Your task to perform on an android device: delete location history Image 0: 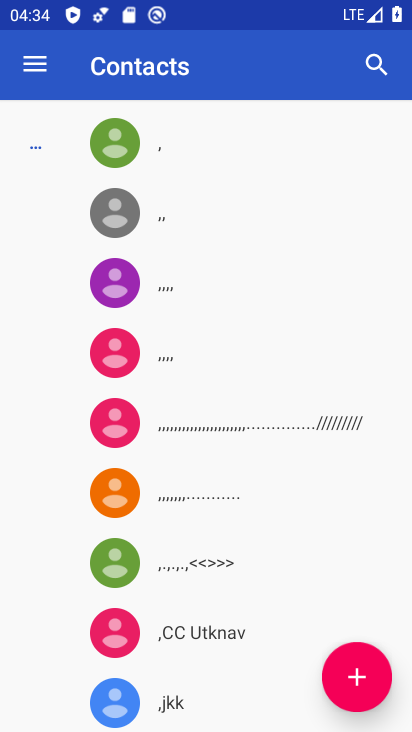
Step 0: press home button
Your task to perform on an android device: delete location history Image 1: 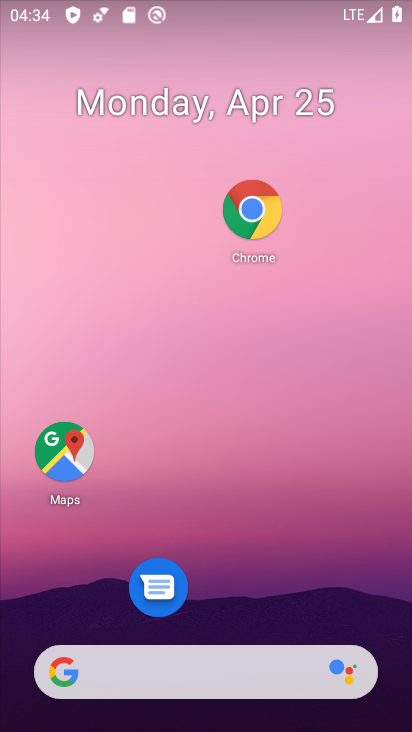
Step 1: click (82, 457)
Your task to perform on an android device: delete location history Image 2: 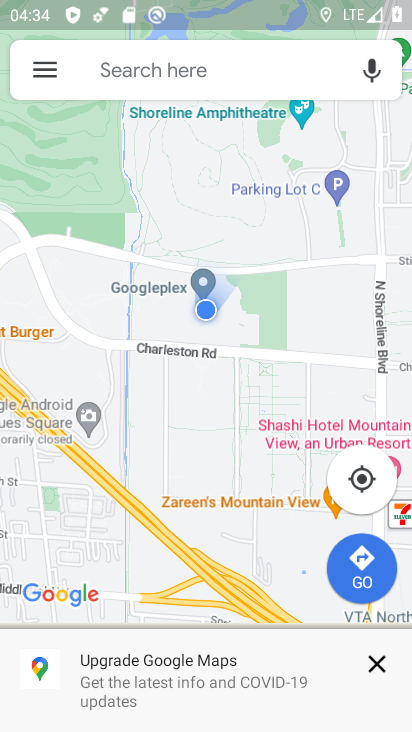
Step 2: click (54, 77)
Your task to perform on an android device: delete location history Image 3: 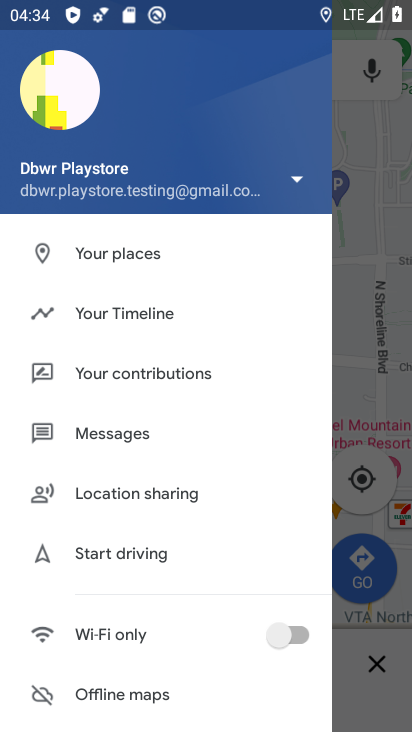
Step 3: click (166, 325)
Your task to perform on an android device: delete location history Image 4: 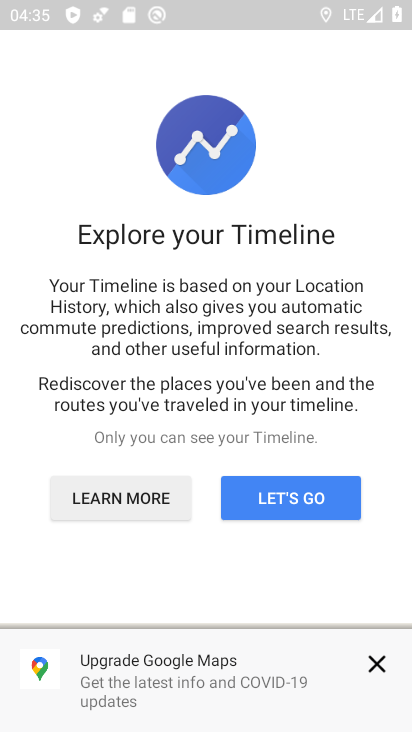
Step 4: click (379, 667)
Your task to perform on an android device: delete location history Image 5: 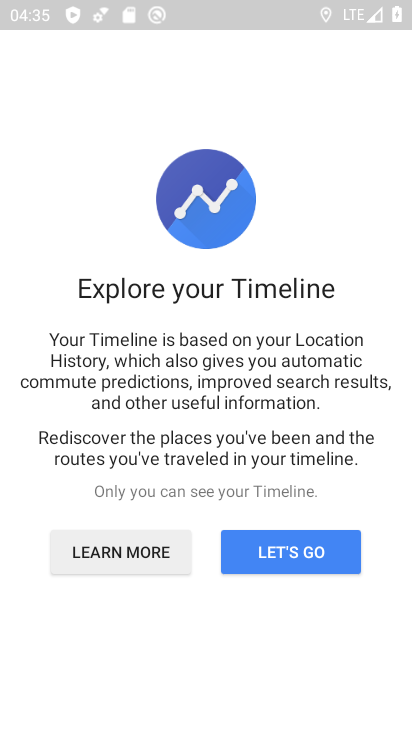
Step 5: click (313, 547)
Your task to perform on an android device: delete location history Image 6: 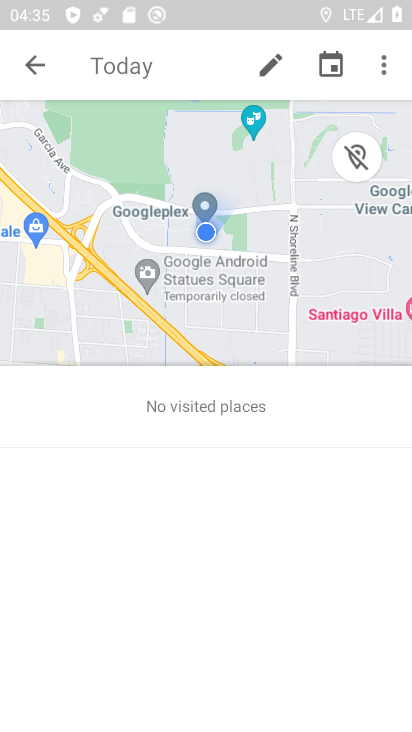
Step 6: click (388, 75)
Your task to perform on an android device: delete location history Image 7: 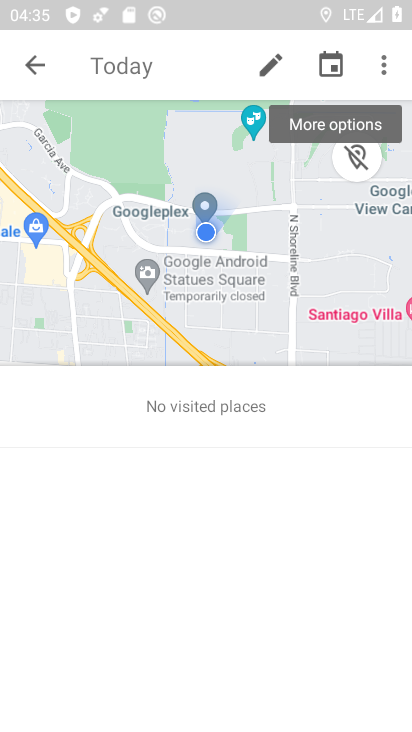
Step 7: click (387, 73)
Your task to perform on an android device: delete location history Image 8: 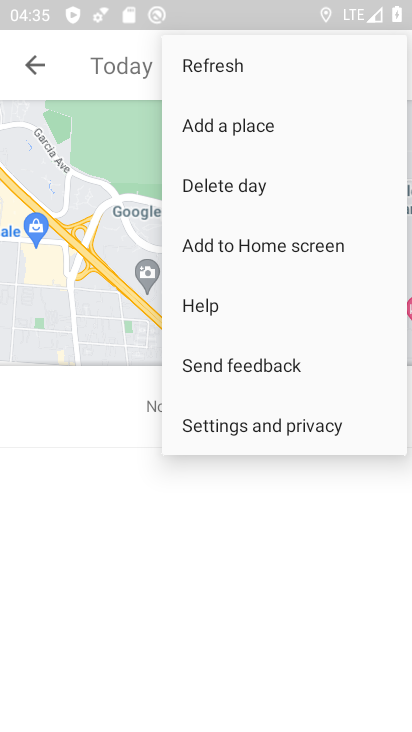
Step 8: click (294, 434)
Your task to perform on an android device: delete location history Image 9: 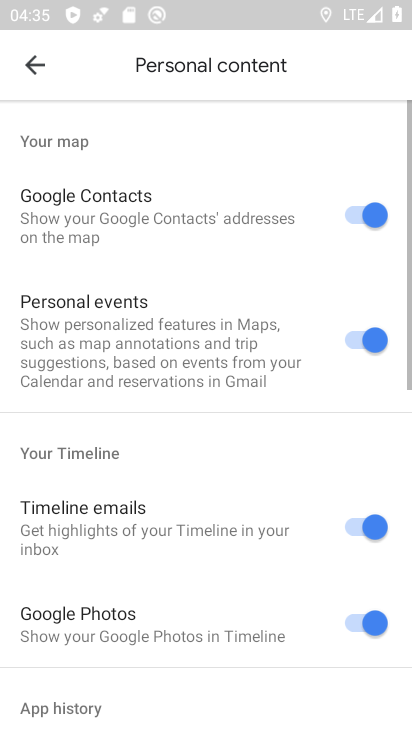
Step 9: drag from (266, 602) to (196, 193)
Your task to perform on an android device: delete location history Image 10: 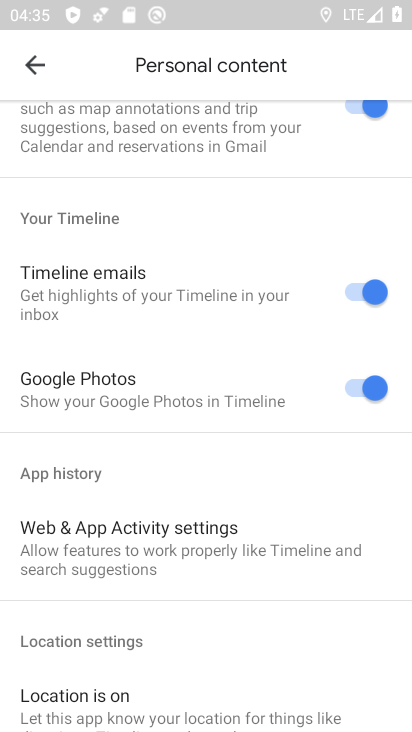
Step 10: drag from (195, 647) to (187, 316)
Your task to perform on an android device: delete location history Image 11: 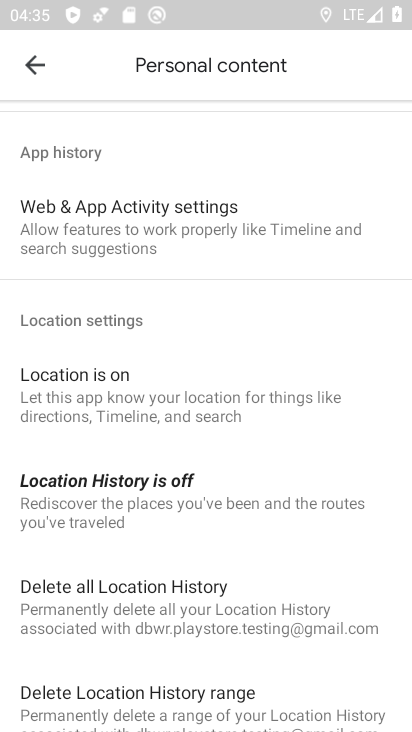
Step 11: click (223, 583)
Your task to perform on an android device: delete location history Image 12: 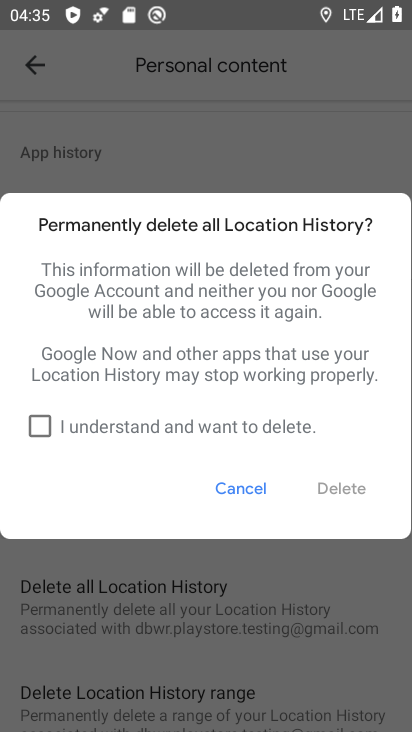
Step 12: click (200, 432)
Your task to perform on an android device: delete location history Image 13: 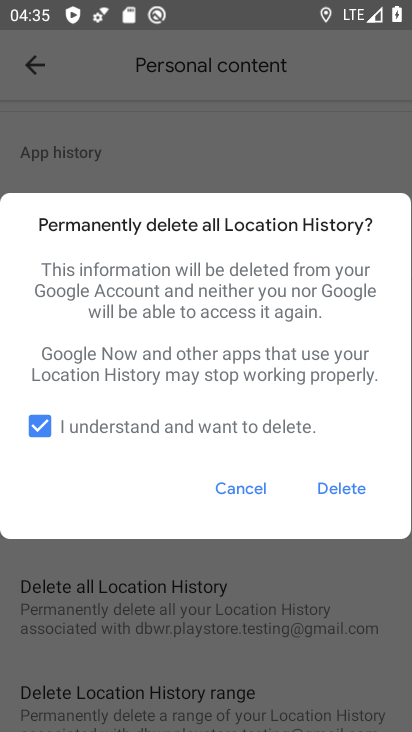
Step 13: click (331, 494)
Your task to perform on an android device: delete location history Image 14: 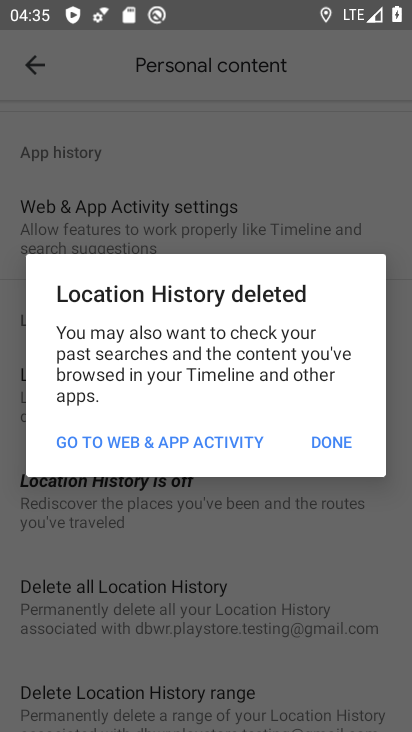
Step 14: click (336, 455)
Your task to perform on an android device: delete location history Image 15: 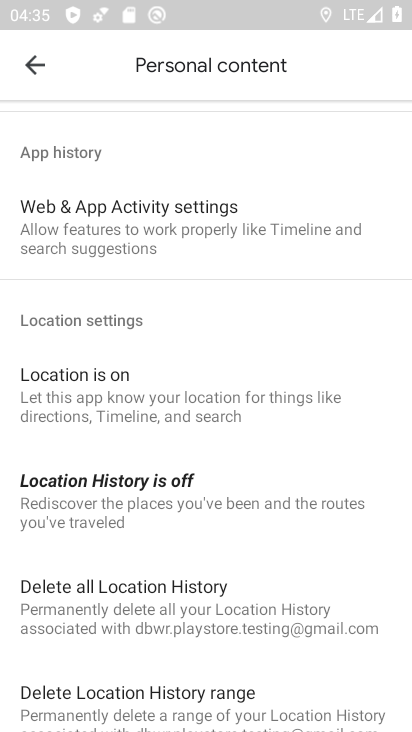
Step 15: task complete